Your task to perform on an android device: Go to wifi settings Image 0: 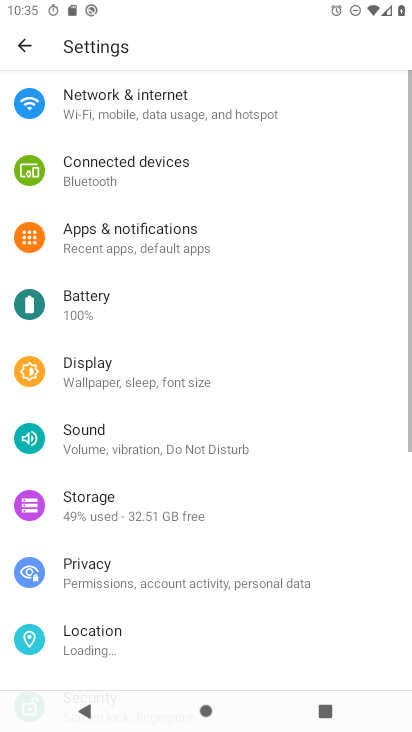
Step 0: press back button
Your task to perform on an android device: Go to wifi settings Image 1: 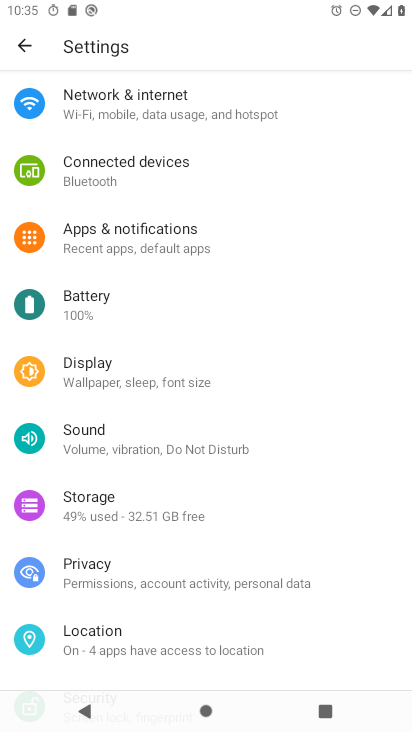
Step 1: drag from (78, 8) to (157, 616)
Your task to perform on an android device: Go to wifi settings Image 2: 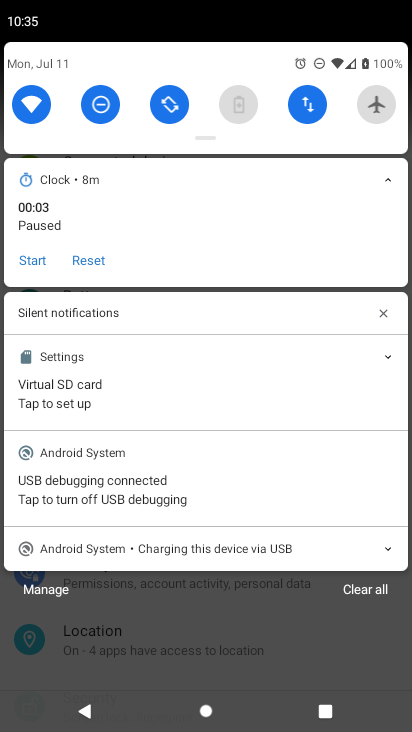
Step 2: click (23, 102)
Your task to perform on an android device: Go to wifi settings Image 3: 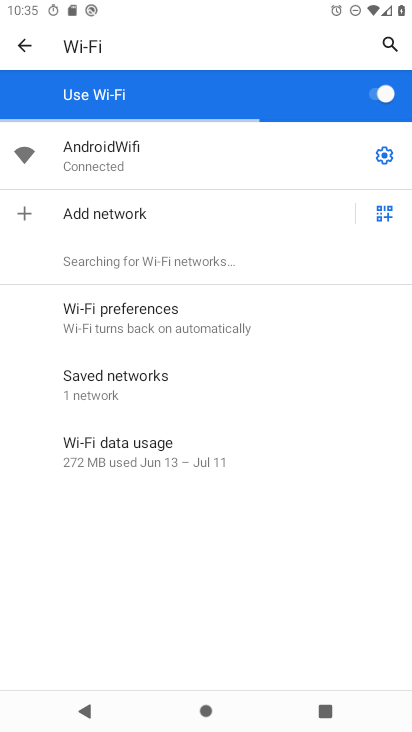
Step 3: task complete